Your task to perform on an android device: toggle improve location accuracy Image 0: 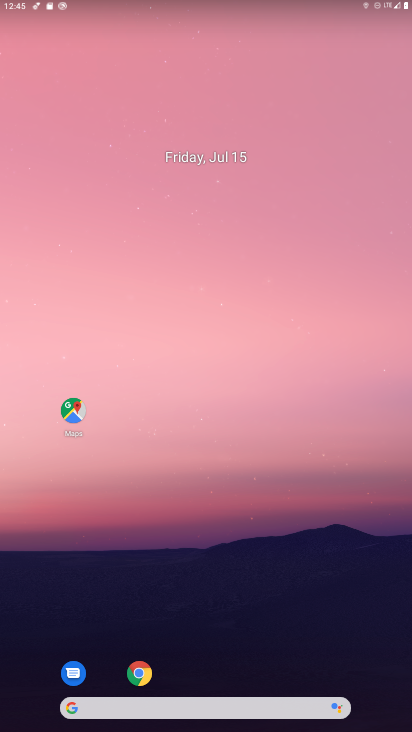
Step 0: drag from (364, 648) to (259, 128)
Your task to perform on an android device: toggle improve location accuracy Image 1: 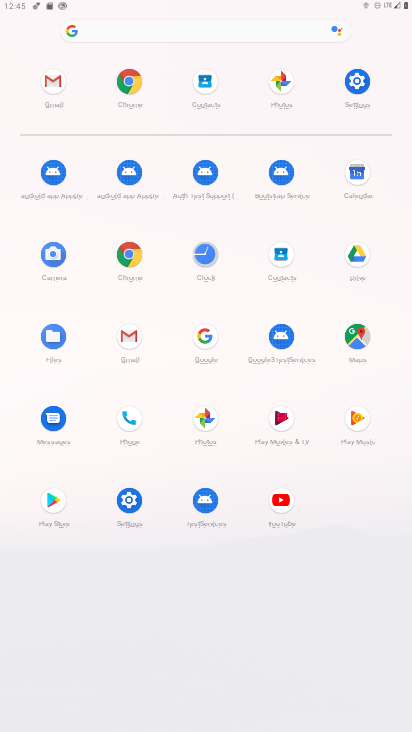
Step 1: click (347, 83)
Your task to perform on an android device: toggle improve location accuracy Image 2: 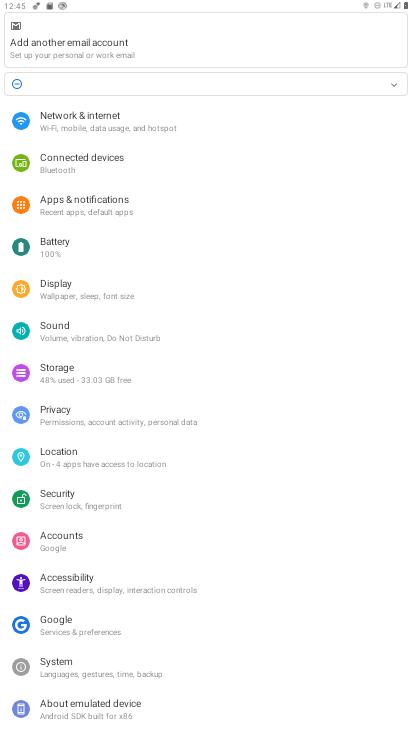
Step 2: click (61, 451)
Your task to perform on an android device: toggle improve location accuracy Image 3: 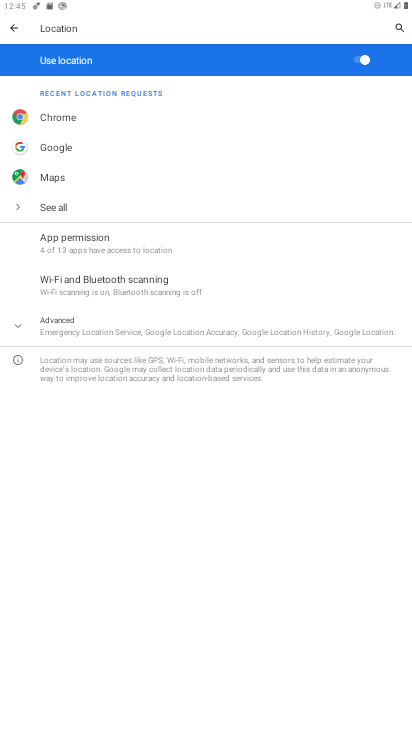
Step 3: click (21, 324)
Your task to perform on an android device: toggle improve location accuracy Image 4: 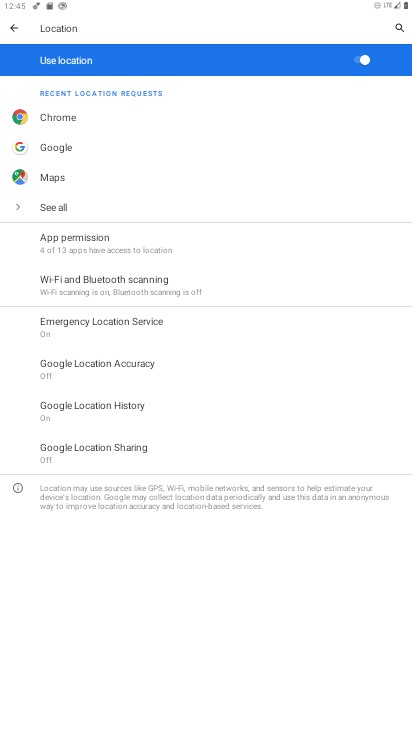
Step 4: click (132, 357)
Your task to perform on an android device: toggle improve location accuracy Image 5: 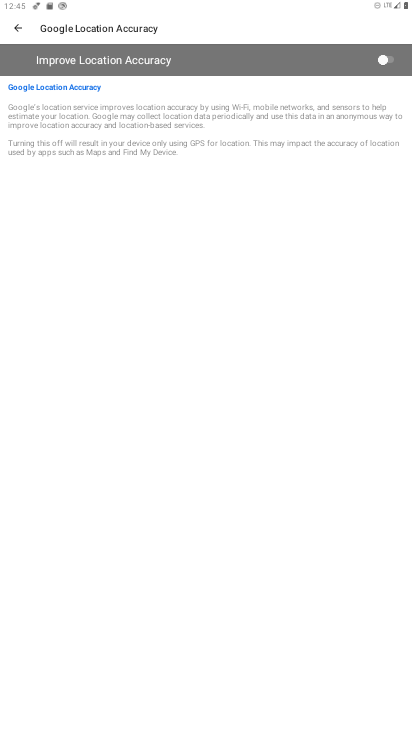
Step 5: click (390, 57)
Your task to perform on an android device: toggle improve location accuracy Image 6: 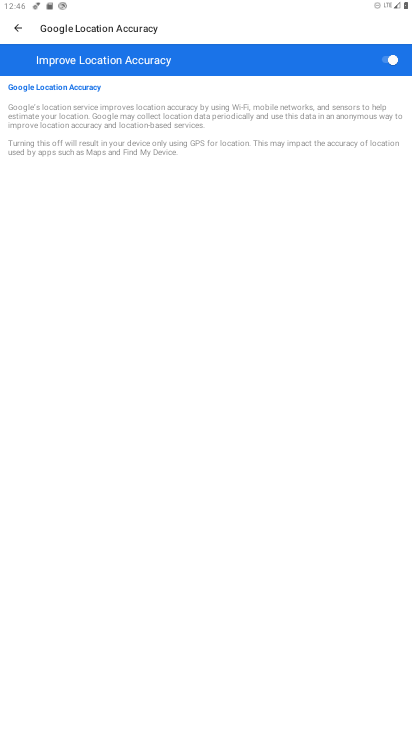
Step 6: task complete